Your task to perform on an android device: Go to Reddit.com Image 0: 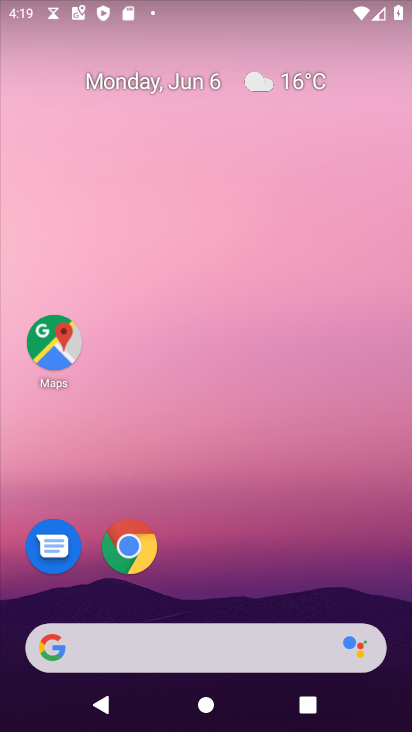
Step 0: drag from (301, 538) to (320, 2)
Your task to perform on an android device: Go to Reddit.com Image 1: 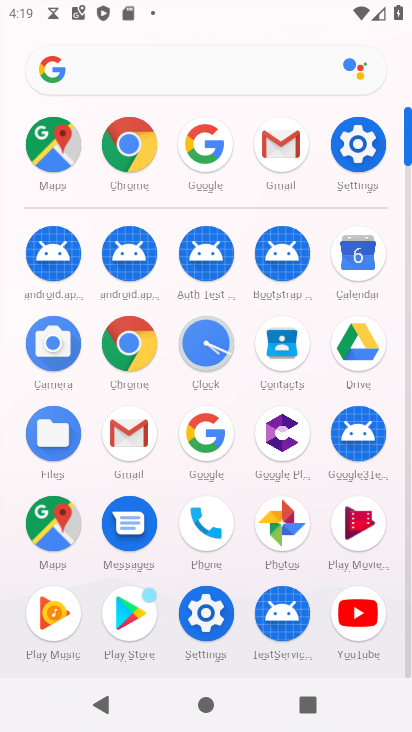
Step 1: click (128, 163)
Your task to perform on an android device: Go to Reddit.com Image 2: 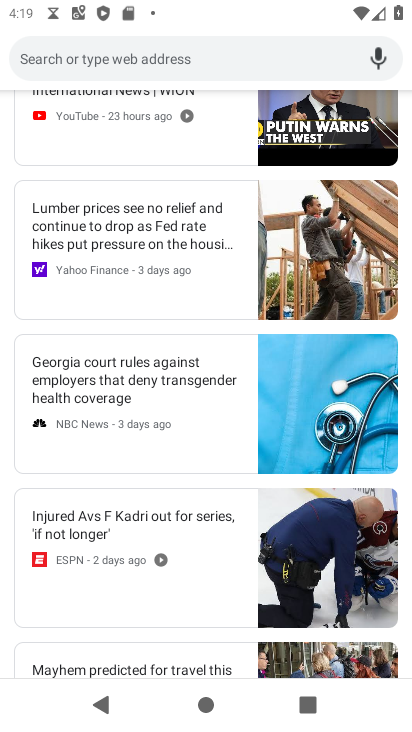
Step 2: drag from (143, 185) to (234, 690)
Your task to perform on an android device: Go to Reddit.com Image 3: 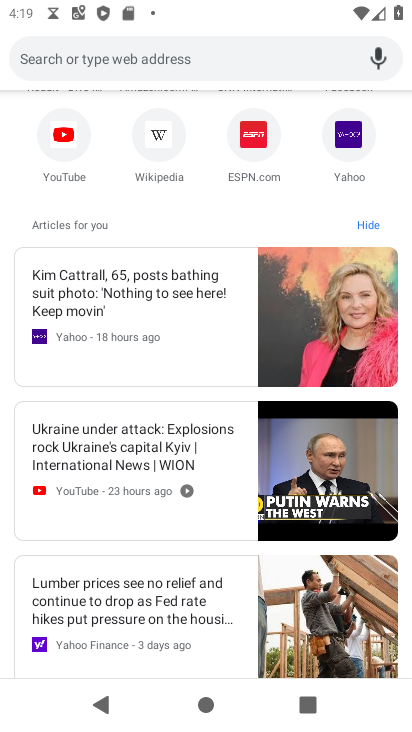
Step 3: drag from (174, 185) to (188, 690)
Your task to perform on an android device: Go to Reddit.com Image 4: 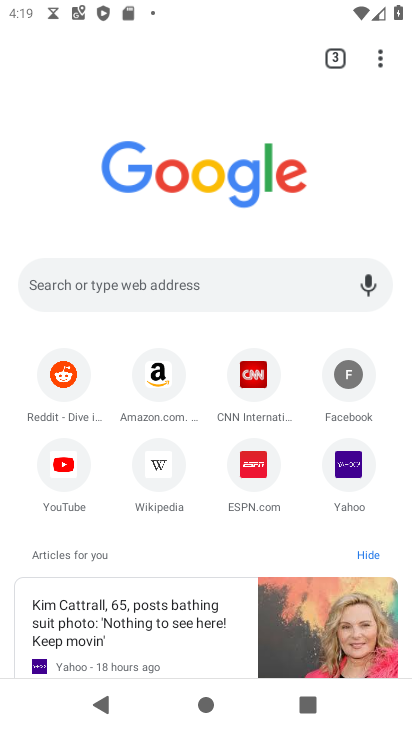
Step 4: click (254, 285)
Your task to perform on an android device: Go to Reddit.com Image 5: 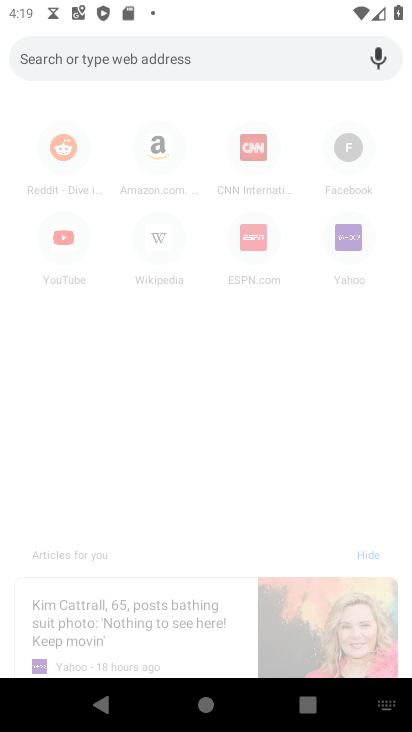
Step 5: type "reddit"
Your task to perform on an android device: Go to Reddit.com Image 6: 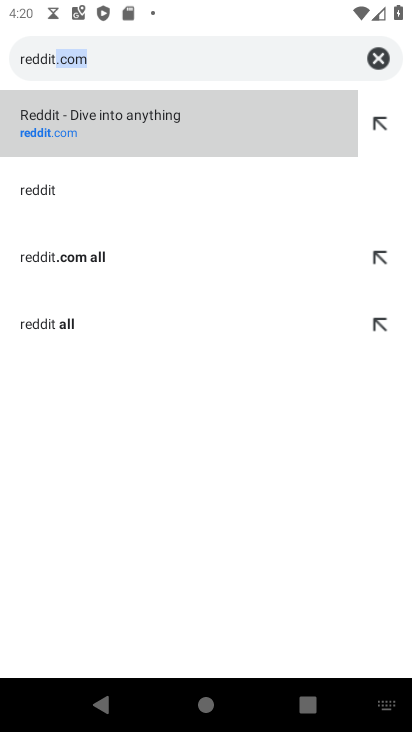
Step 6: click (58, 144)
Your task to perform on an android device: Go to Reddit.com Image 7: 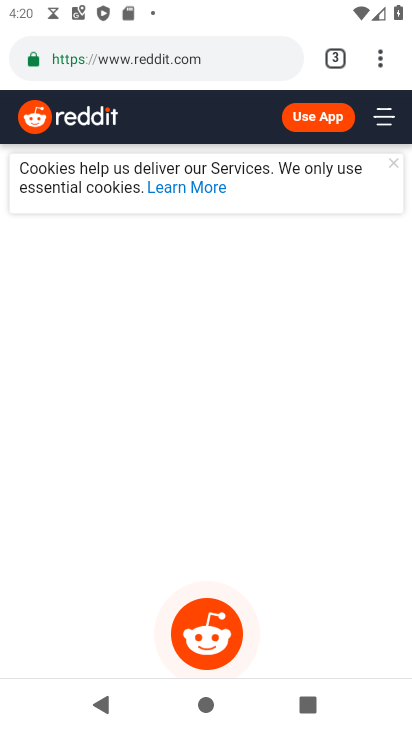
Step 7: task complete